Your task to perform on an android device: turn off location Image 0: 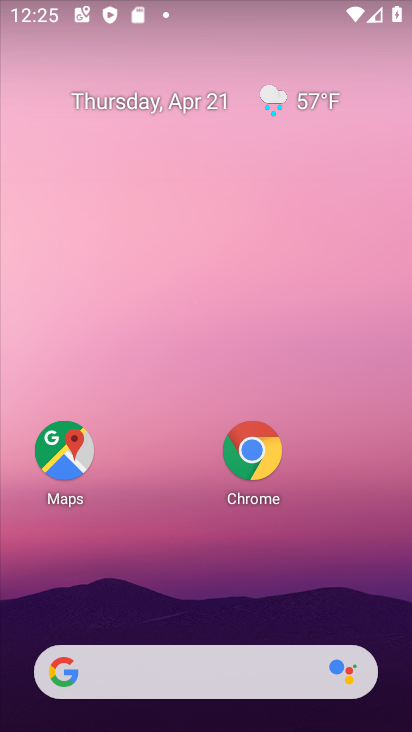
Step 0: drag from (163, 590) to (206, 26)
Your task to perform on an android device: turn off location Image 1: 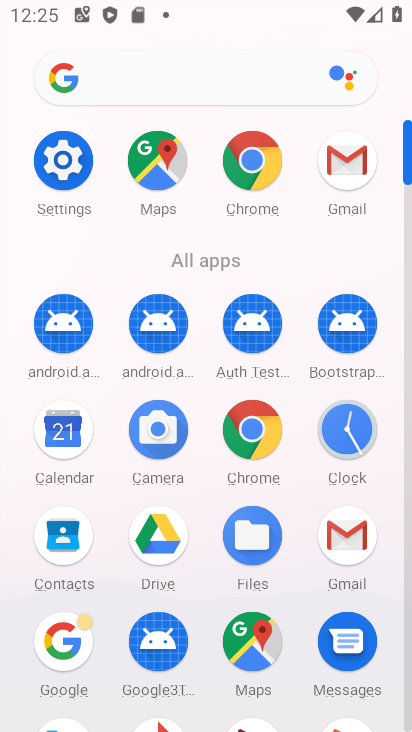
Step 1: click (68, 160)
Your task to perform on an android device: turn off location Image 2: 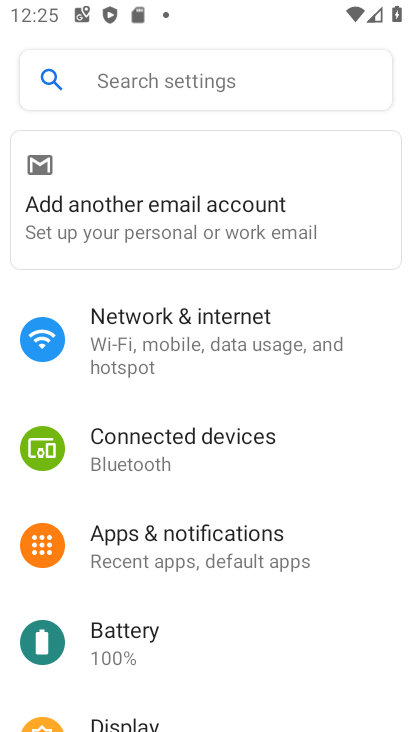
Step 2: drag from (143, 640) to (165, 239)
Your task to perform on an android device: turn off location Image 3: 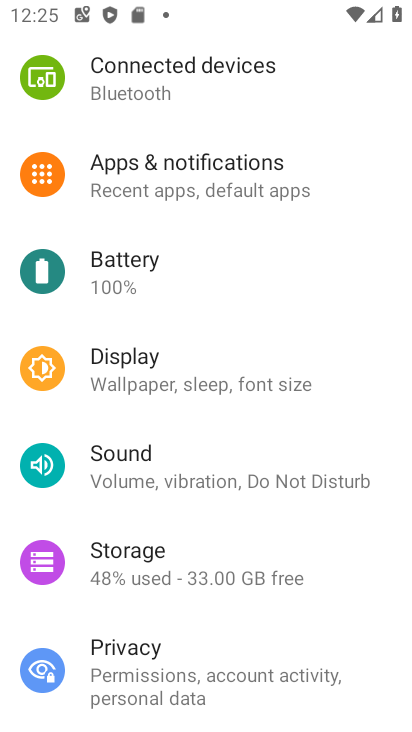
Step 3: drag from (121, 646) to (190, 150)
Your task to perform on an android device: turn off location Image 4: 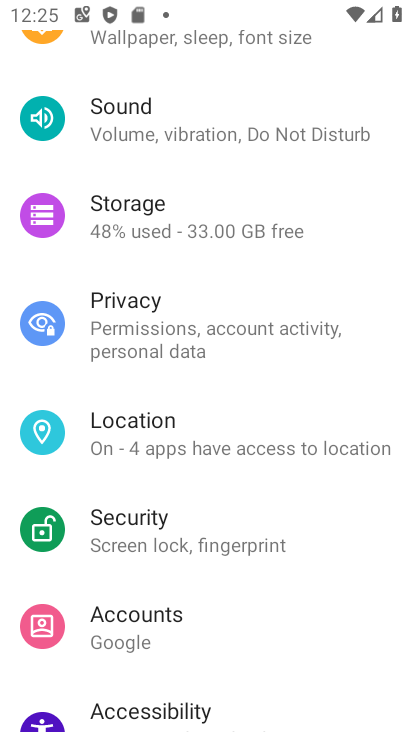
Step 4: click (149, 413)
Your task to perform on an android device: turn off location Image 5: 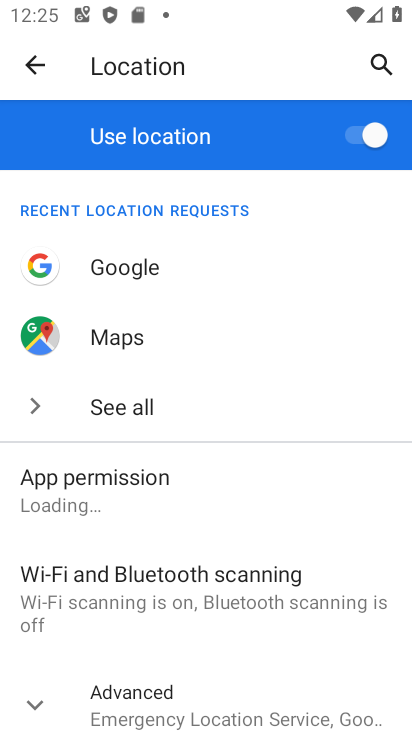
Step 5: click (352, 142)
Your task to perform on an android device: turn off location Image 6: 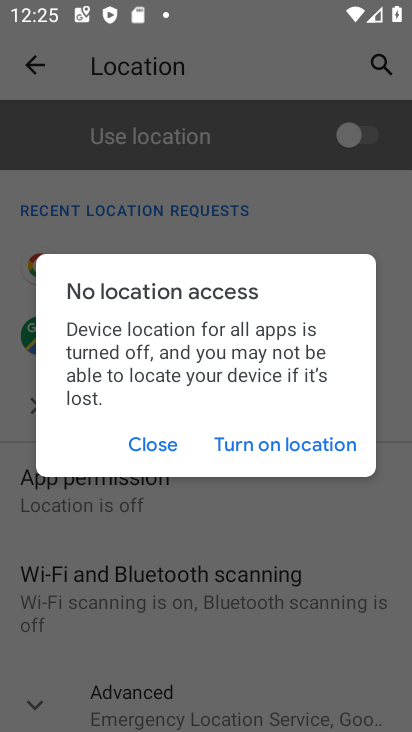
Step 6: task complete